Your task to perform on an android device: Is it going to rain this weekend? Image 0: 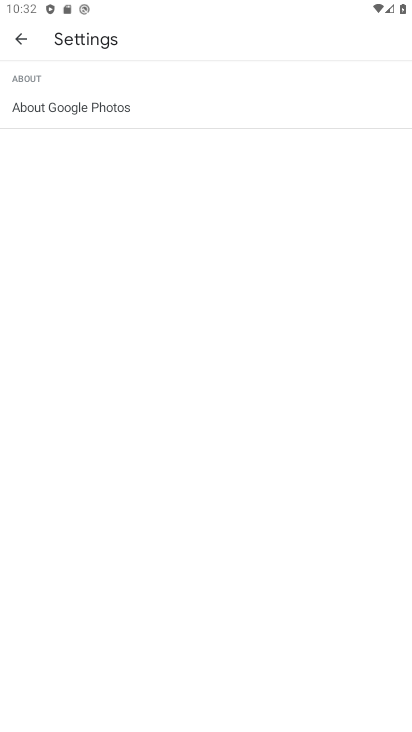
Step 0: press home button
Your task to perform on an android device: Is it going to rain this weekend? Image 1: 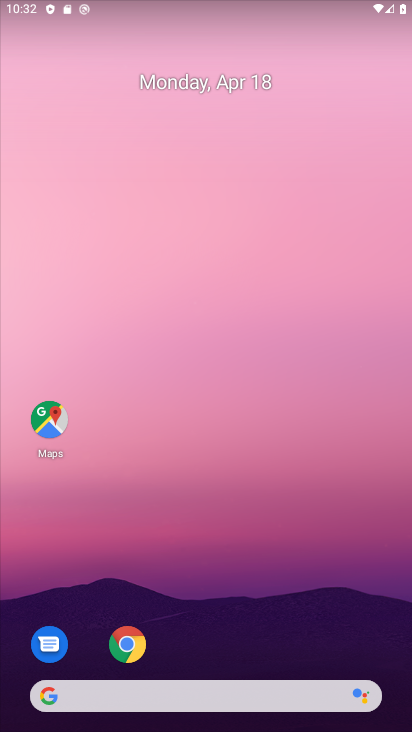
Step 1: click (146, 688)
Your task to perform on an android device: Is it going to rain this weekend? Image 2: 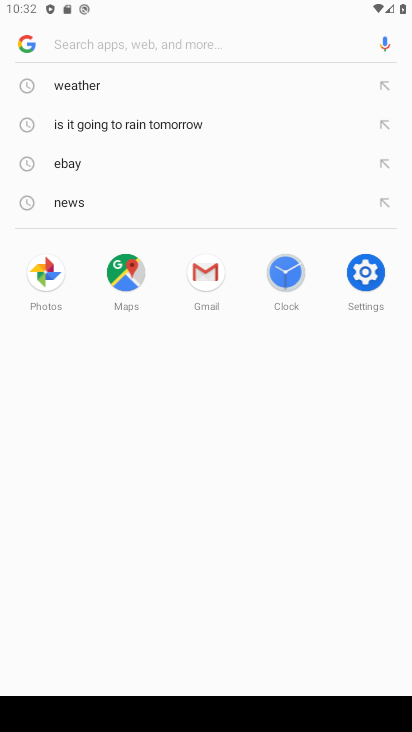
Step 2: type "Is it going to rain this weekend?"
Your task to perform on an android device: Is it going to rain this weekend? Image 3: 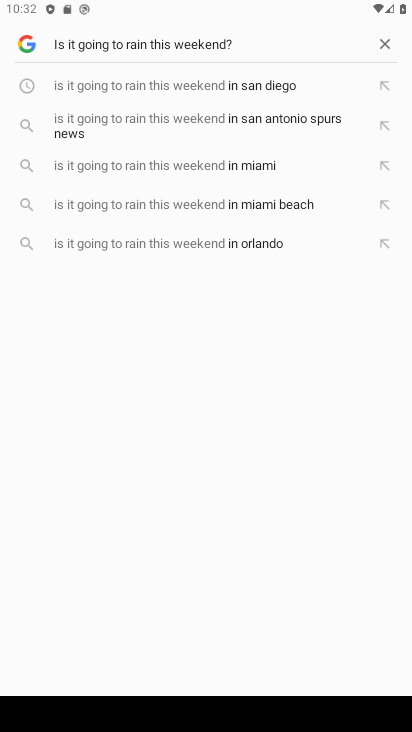
Step 3: click (253, 91)
Your task to perform on an android device: Is it going to rain this weekend? Image 4: 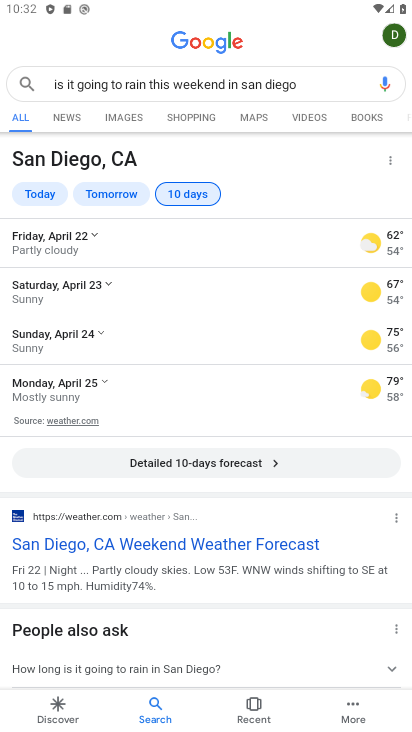
Step 4: task complete